Your task to perform on an android device: What's on my calendar today? Image 0: 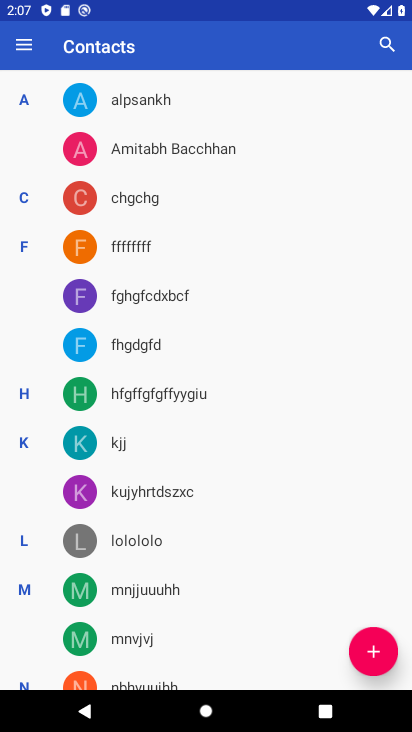
Step 0: press back button
Your task to perform on an android device: What's on my calendar today? Image 1: 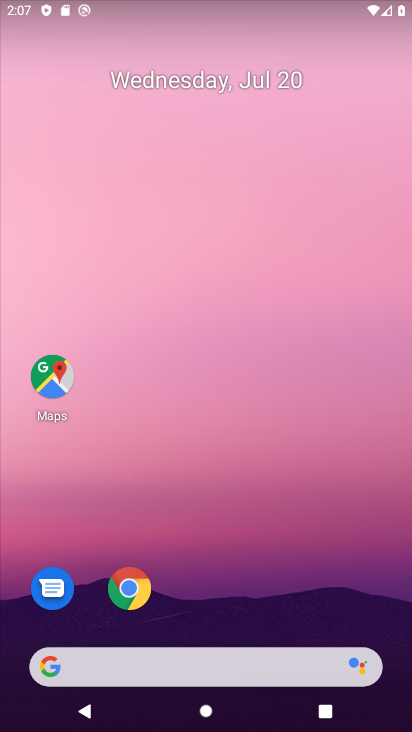
Step 1: drag from (234, 573) to (224, 238)
Your task to perform on an android device: What's on my calendar today? Image 2: 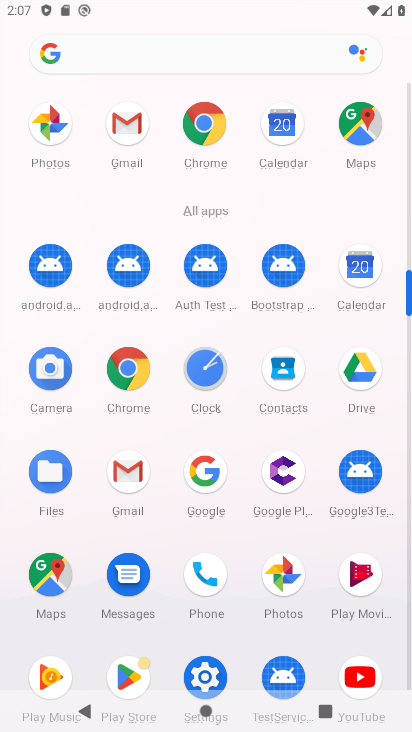
Step 2: click (363, 267)
Your task to perform on an android device: What's on my calendar today? Image 3: 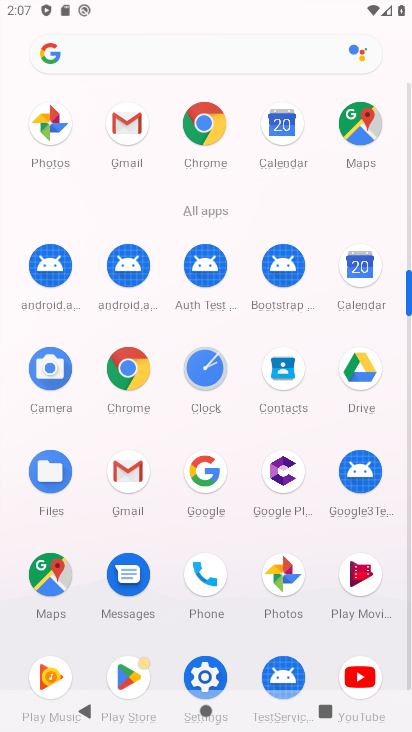
Step 3: click (363, 267)
Your task to perform on an android device: What's on my calendar today? Image 4: 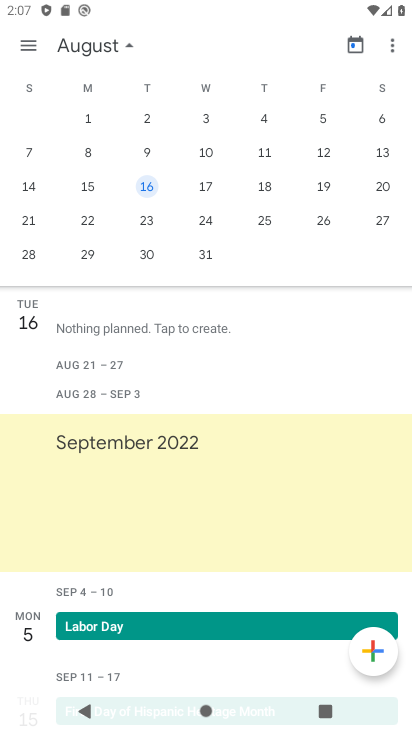
Step 4: task complete